Your task to perform on an android device: Is it going to rain today? Image 0: 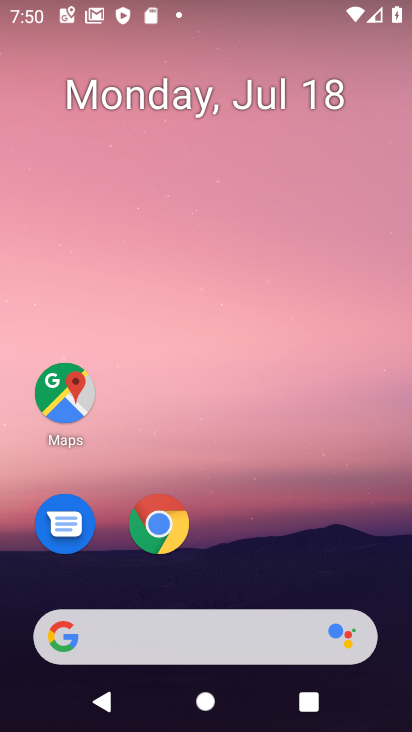
Step 0: click (192, 651)
Your task to perform on an android device: Is it going to rain today? Image 1: 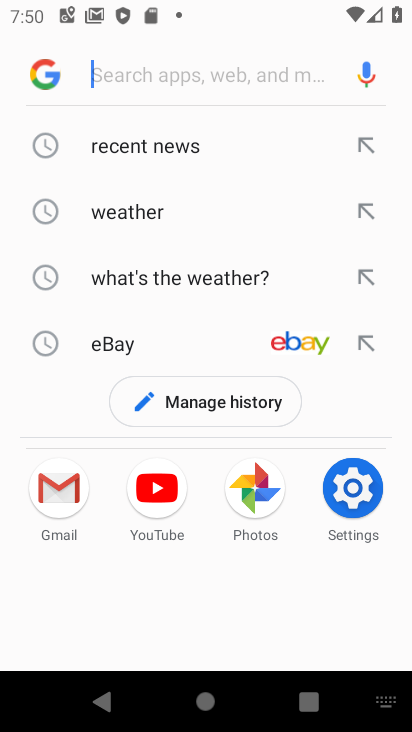
Step 1: click (132, 212)
Your task to perform on an android device: Is it going to rain today? Image 2: 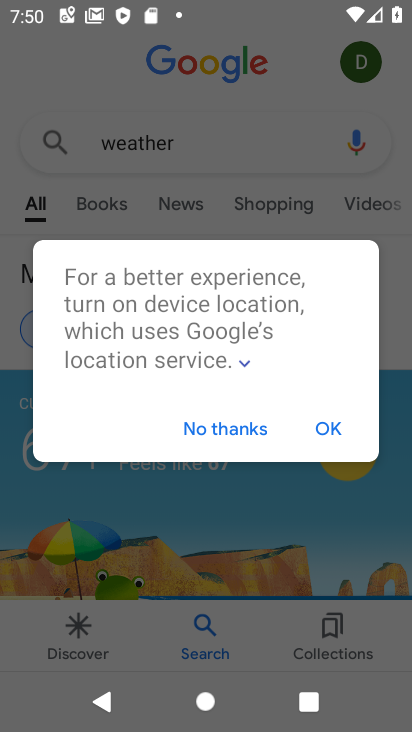
Step 2: click (248, 425)
Your task to perform on an android device: Is it going to rain today? Image 3: 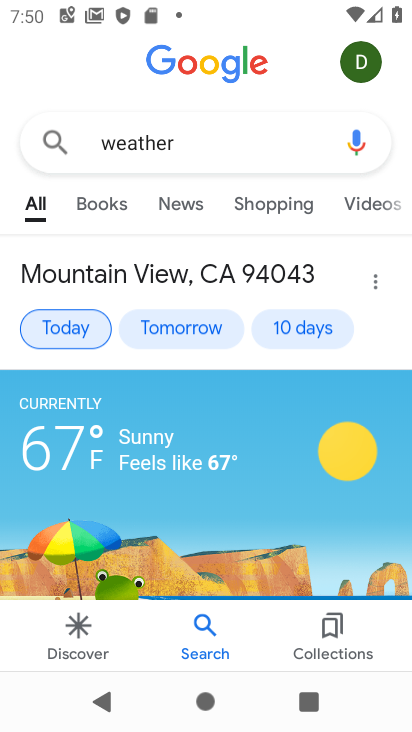
Step 3: click (66, 323)
Your task to perform on an android device: Is it going to rain today? Image 4: 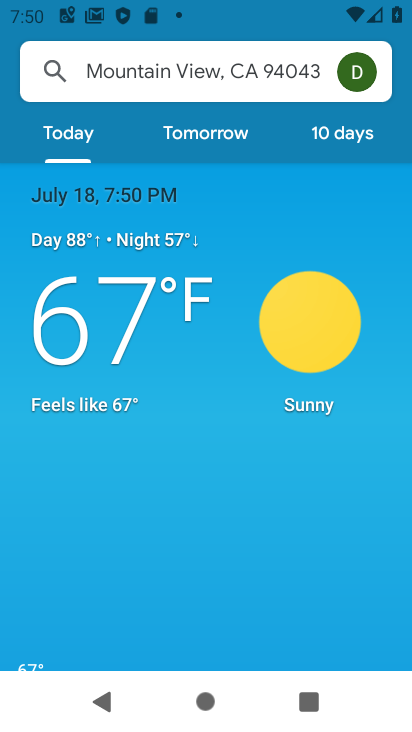
Step 4: task complete